Your task to perform on an android device: View the shopping cart on target.com. Search for dell alienware on target.com, select the first entry, add it to the cart, then select checkout. Image 0: 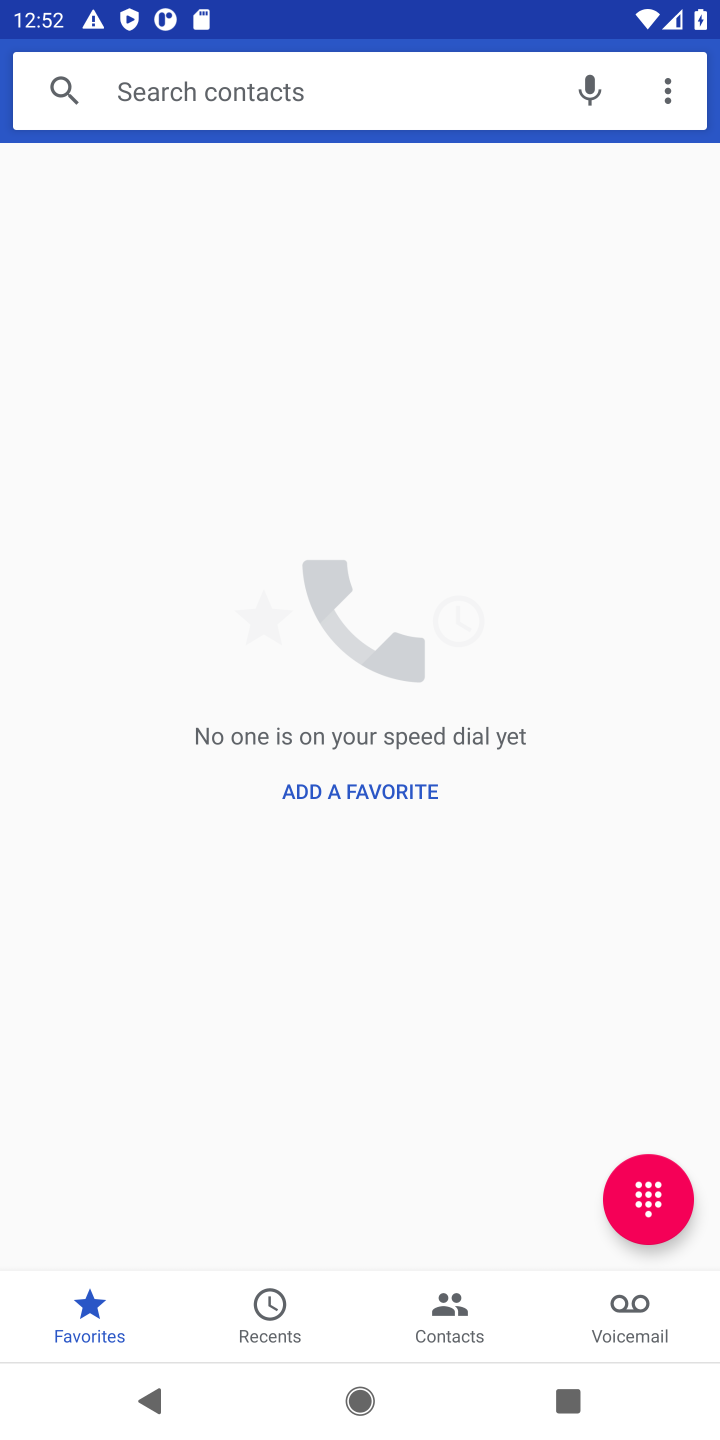
Step 0: press home button
Your task to perform on an android device: View the shopping cart on target.com. Search for dell alienware on target.com, select the first entry, add it to the cart, then select checkout. Image 1: 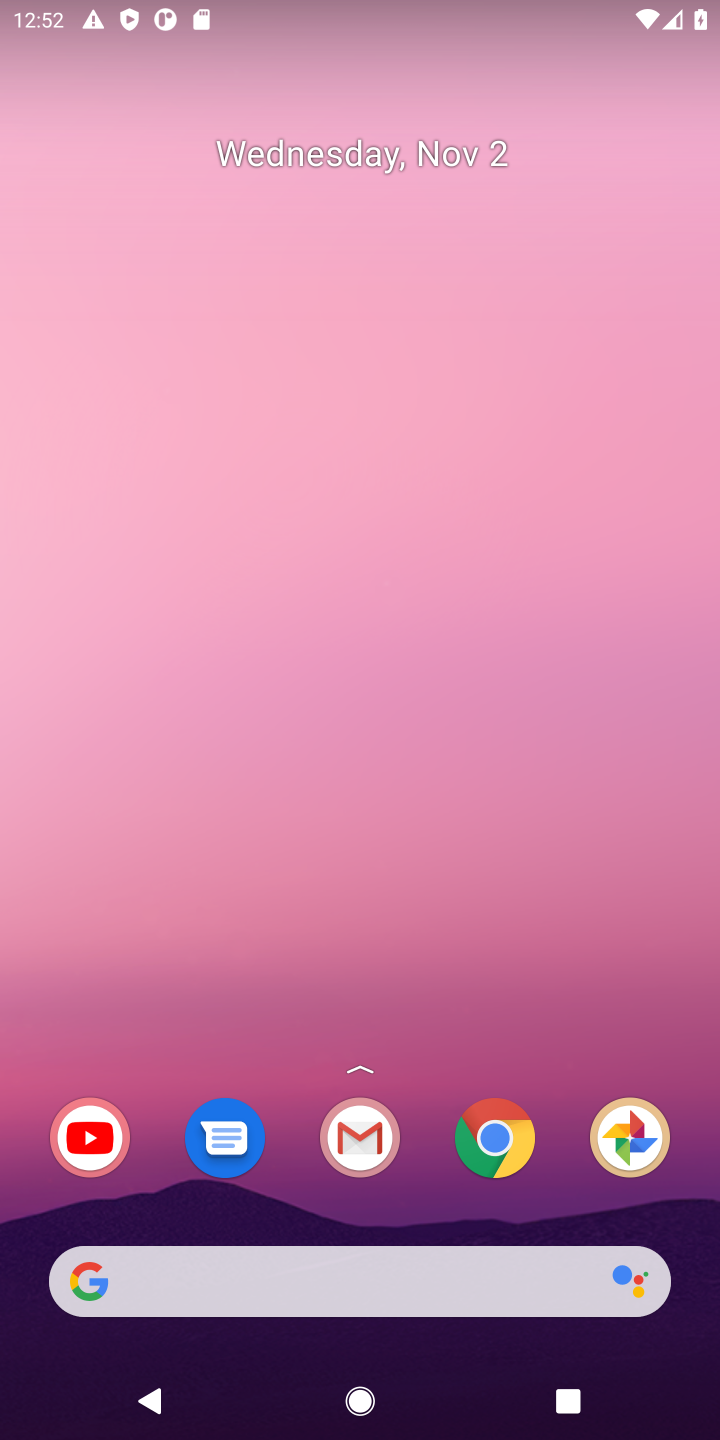
Step 1: click (141, 1286)
Your task to perform on an android device: View the shopping cart on target.com. Search for dell alienware on target.com, select the first entry, add it to the cart, then select checkout. Image 2: 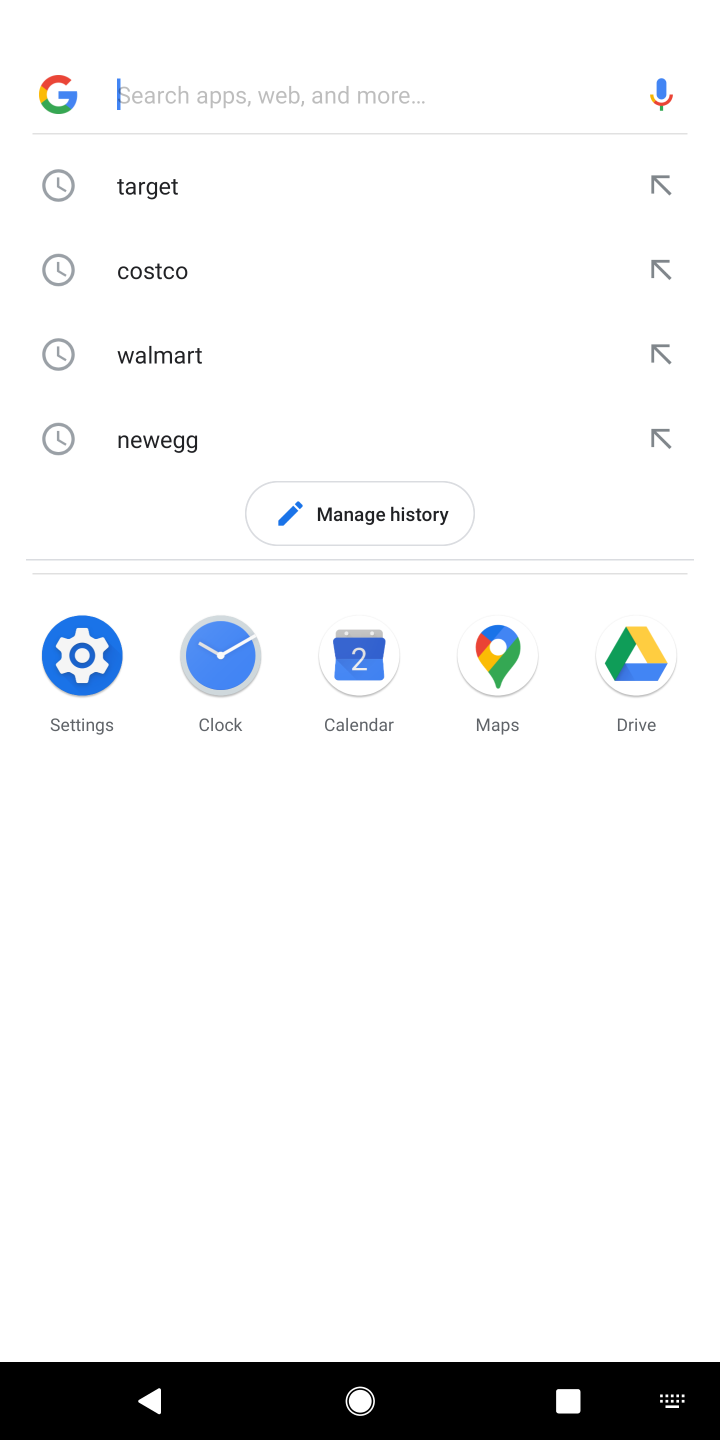
Step 2: type "target.com"
Your task to perform on an android device: View the shopping cart on target.com. Search for dell alienware on target.com, select the first entry, add it to the cart, then select checkout. Image 3: 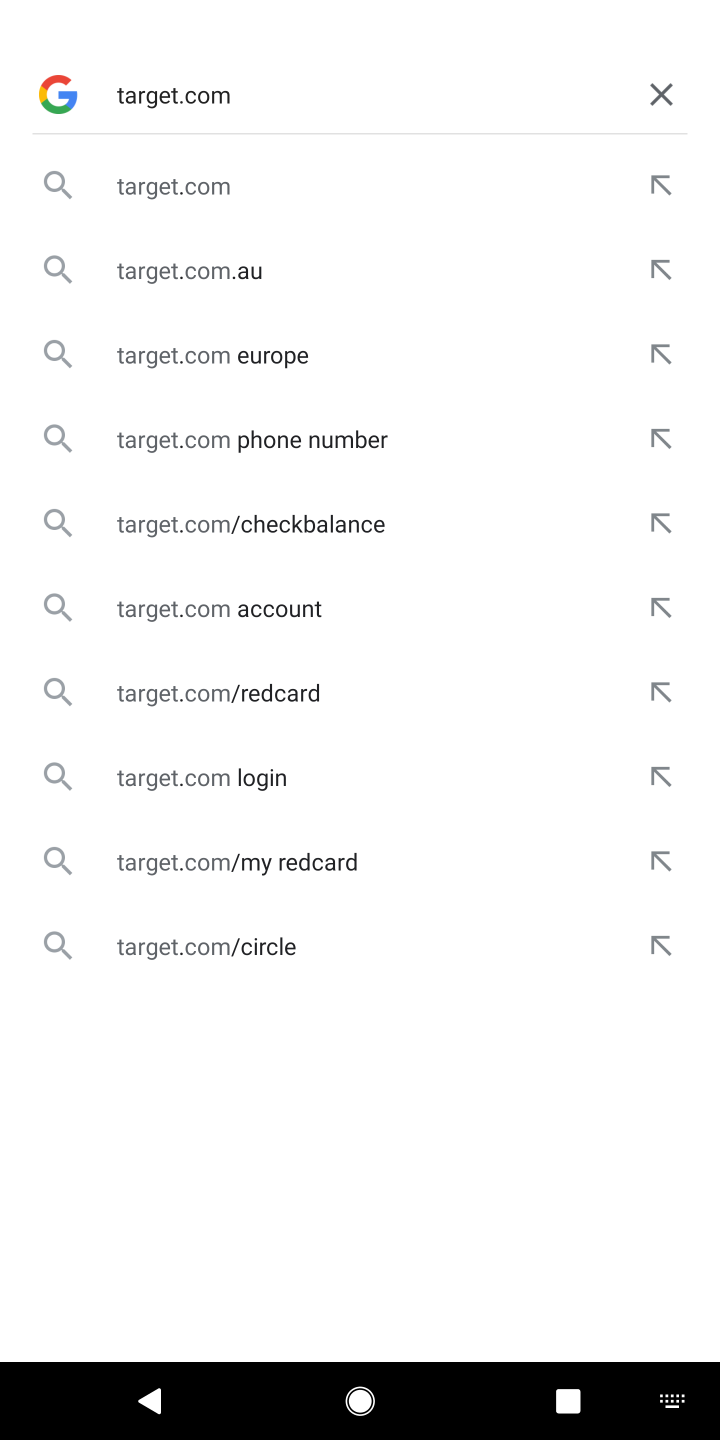
Step 3: press enter
Your task to perform on an android device: View the shopping cart on target.com. Search for dell alienware on target.com, select the first entry, add it to the cart, then select checkout. Image 4: 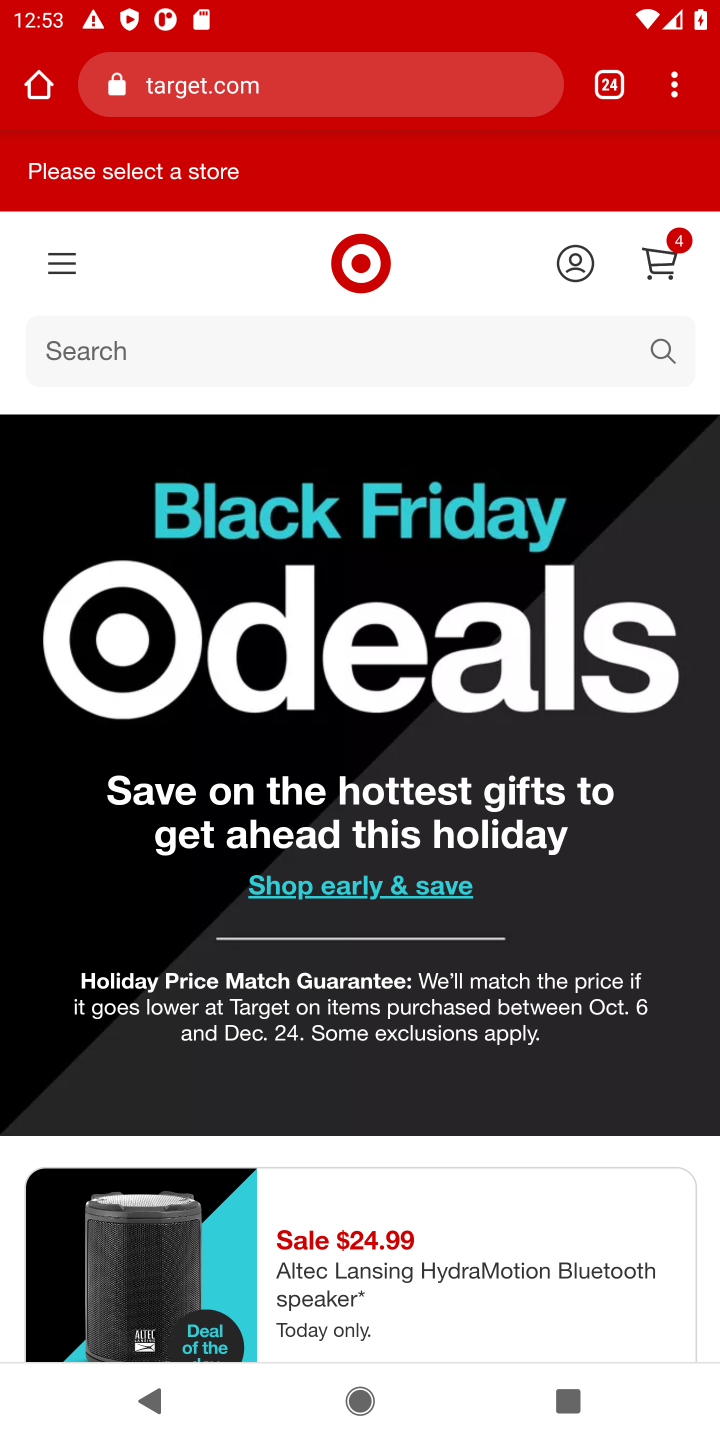
Step 4: click (666, 255)
Your task to perform on an android device: View the shopping cart on target.com. Search for dell alienware on target.com, select the first entry, add it to the cart, then select checkout. Image 5: 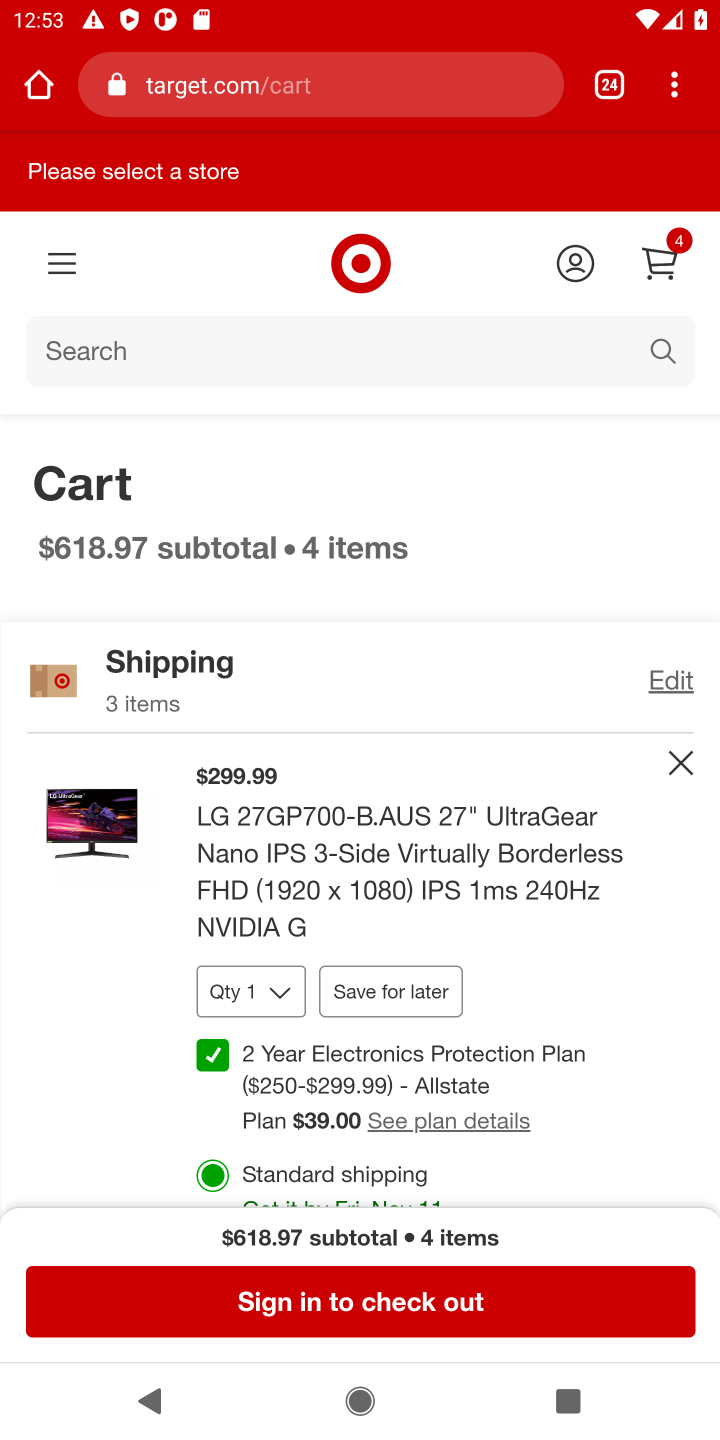
Step 5: click (138, 344)
Your task to perform on an android device: View the shopping cart on target.com. Search for dell alienware on target.com, select the first entry, add it to the cart, then select checkout. Image 6: 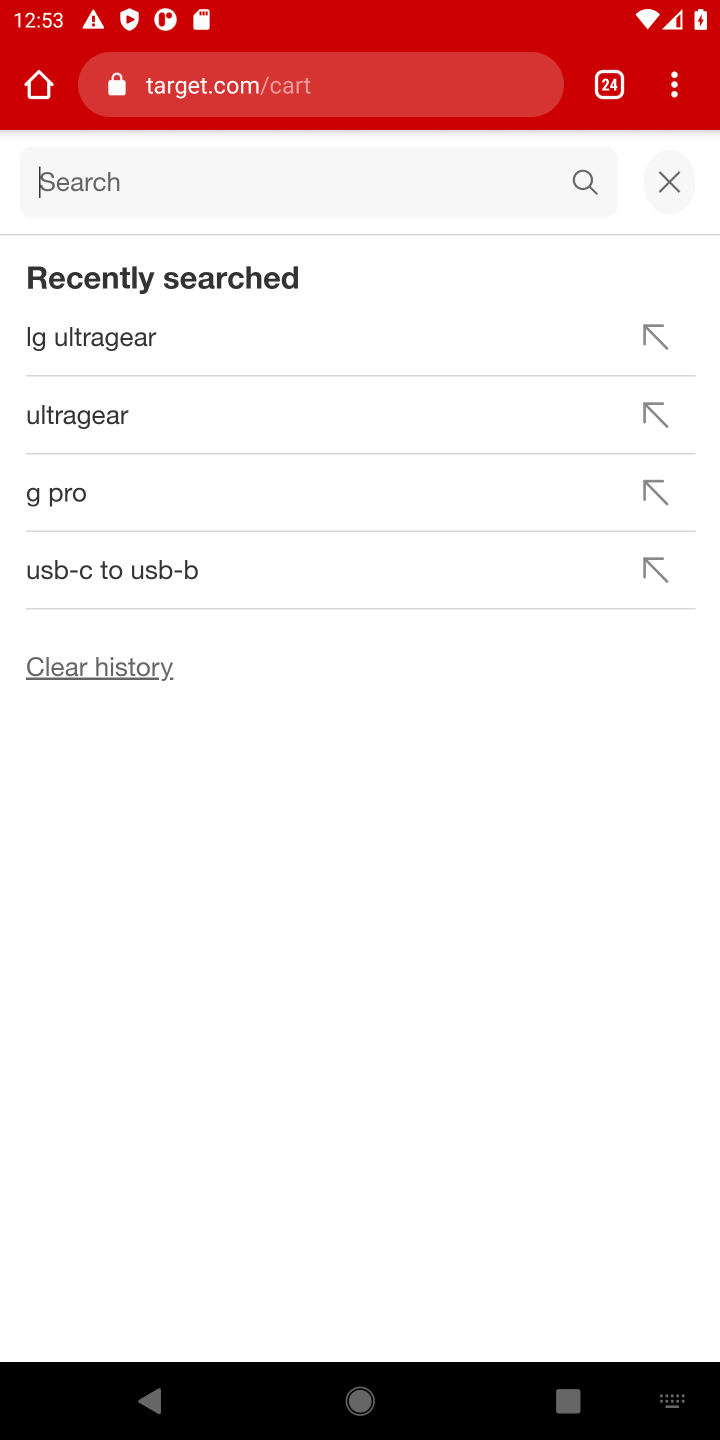
Step 6: type "dell alienware"
Your task to perform on an android device: View the shopping cart on target.com. Search for dell alienware on target.com, select the first entry, add it to the cart, then select checkout. Image 7: 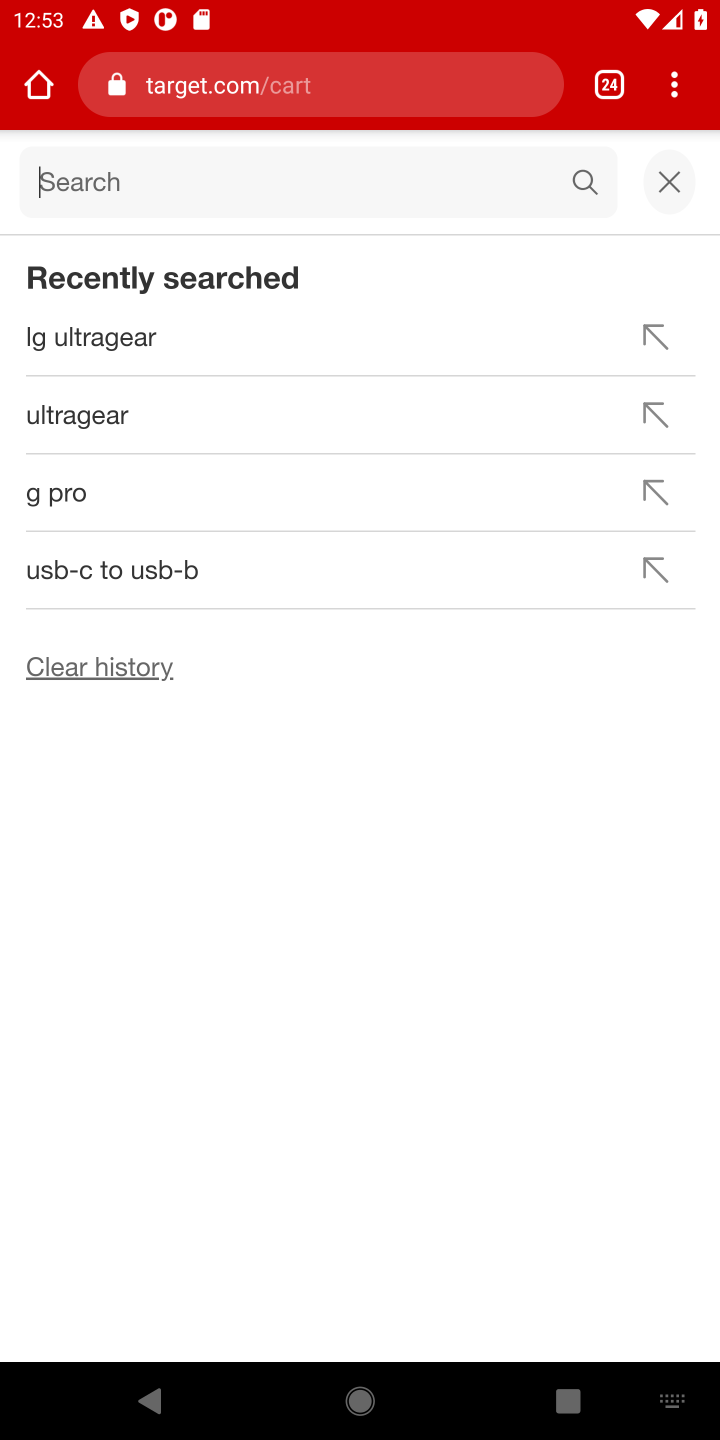
Step 7: press enter
Your task to perform on an android device: View the shopping cart on target.com. Search for dell alienware on target.com, select the first entry, add it to the cart, then select checkout. Image 8: 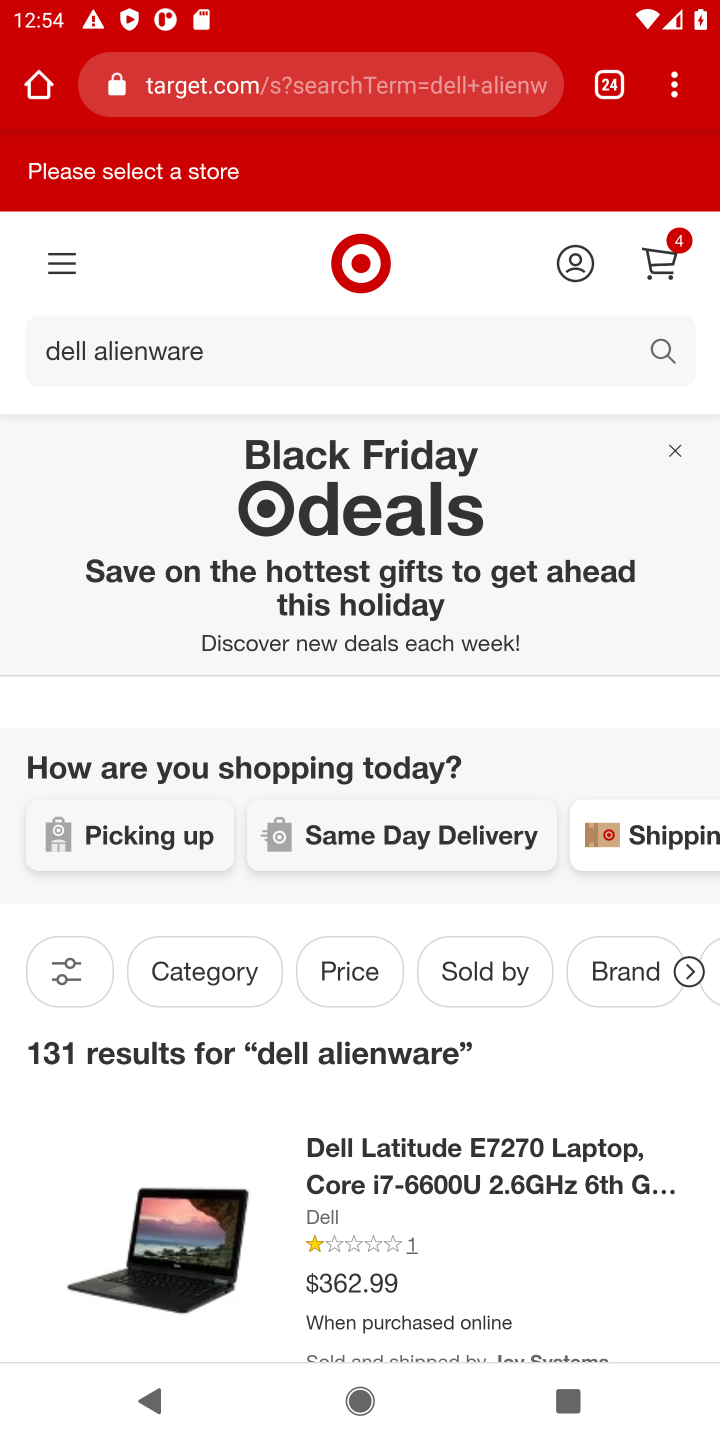
Step 8: task complete